Your task to perform on an android device: Open Youtube and go to "Your channel" Image 0: 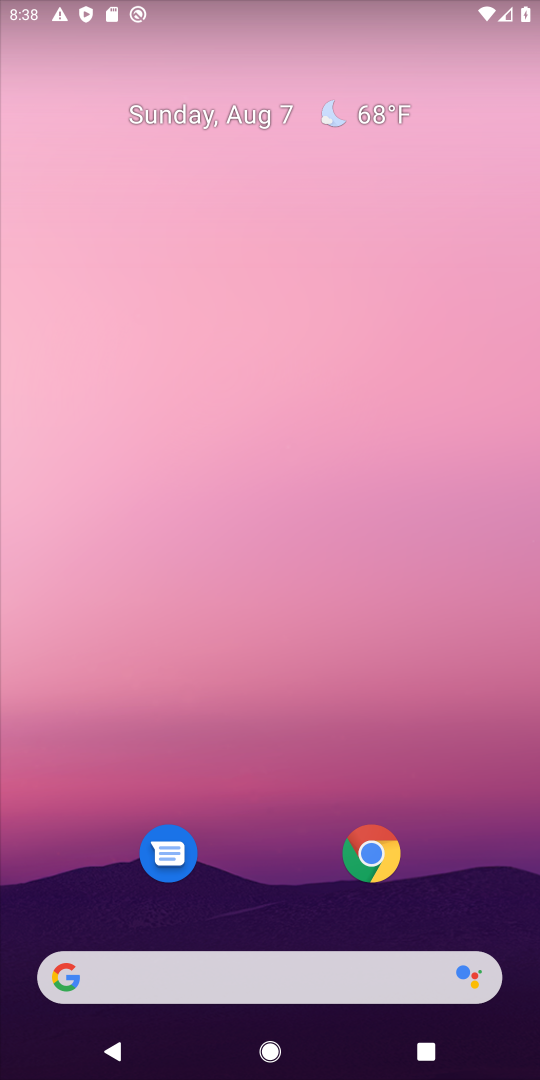
Step 0: drag from (360, 877) to (303, 284)
Your task to perform on an android device: Open Youtube and go to "Your channel" Image 1: 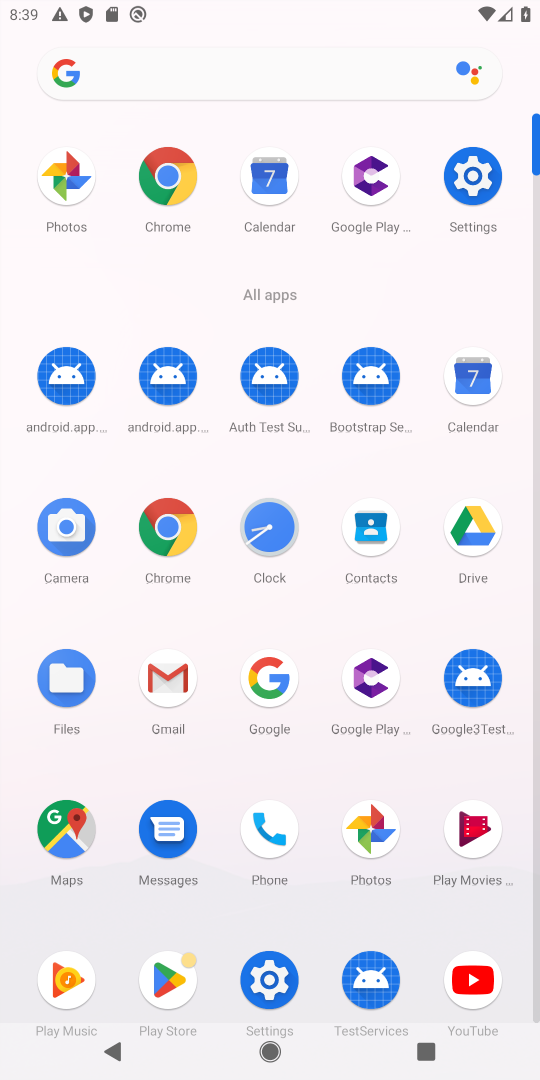
Step 1: click (464, 988)
Your task to perform on an android device: Open Youtube and go to "Your channel" Image 2: 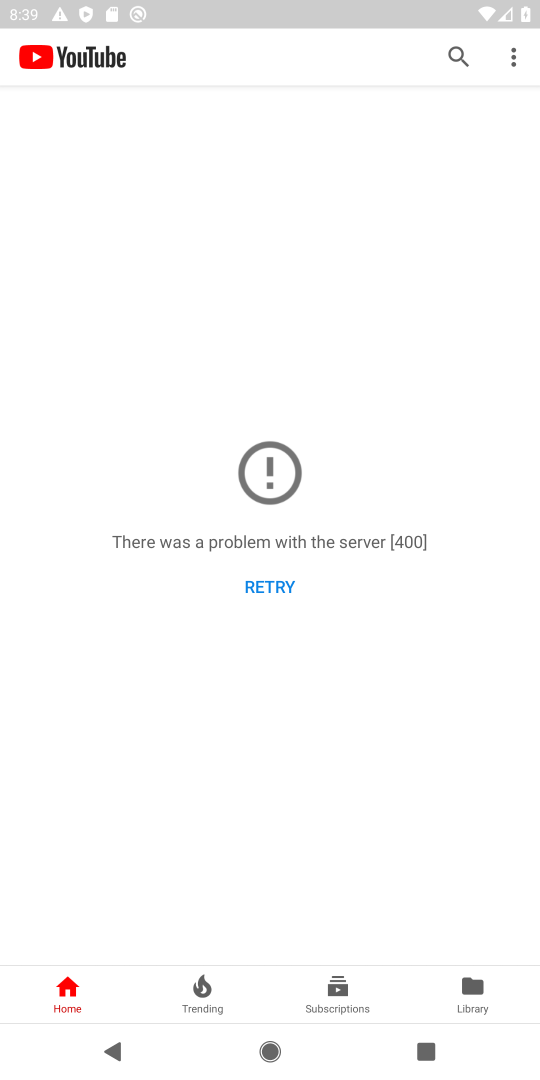
Step 2: click (459, 51)
Your task to perform on an android device: Open Youtube and go to "Your channel" Image 3: 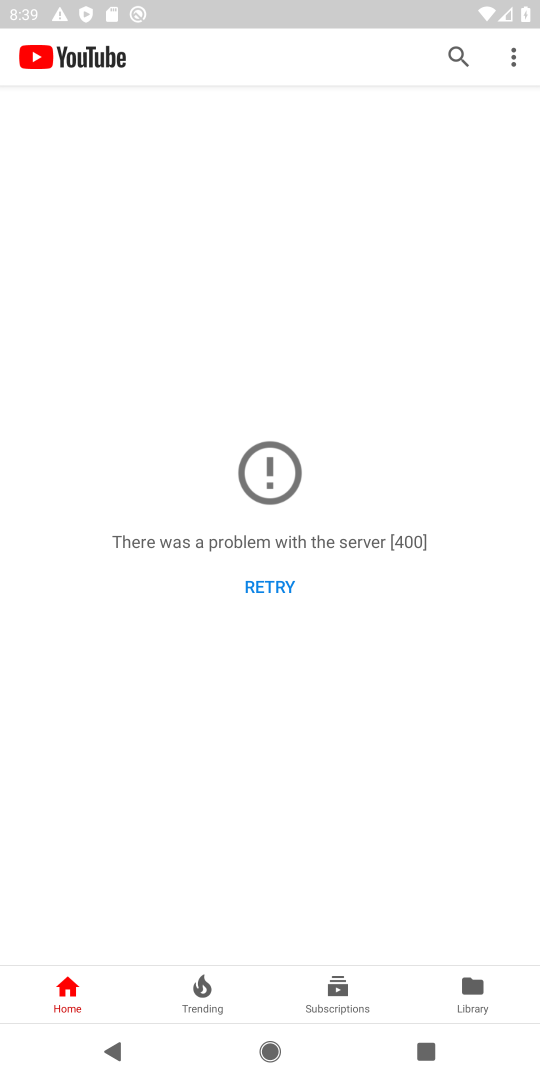
Step 3: click (449, 41)
Your task to perform on an android device: Open Youtube and go to "Your channel" Image 4: 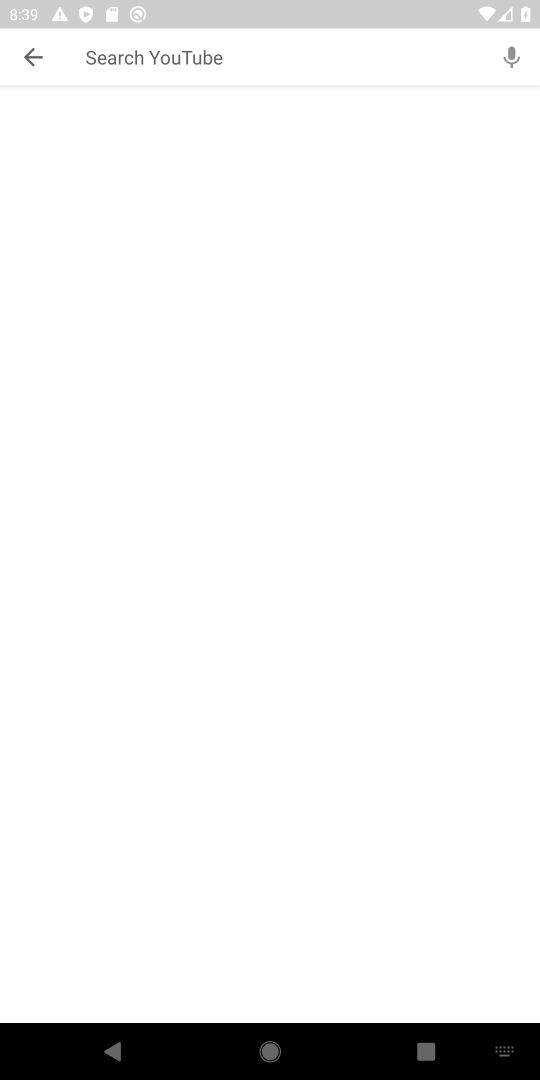
Step 4: click (268, 36)
Your task to perform on an android device: Open Youtube and go to "Your channel" Image 5: 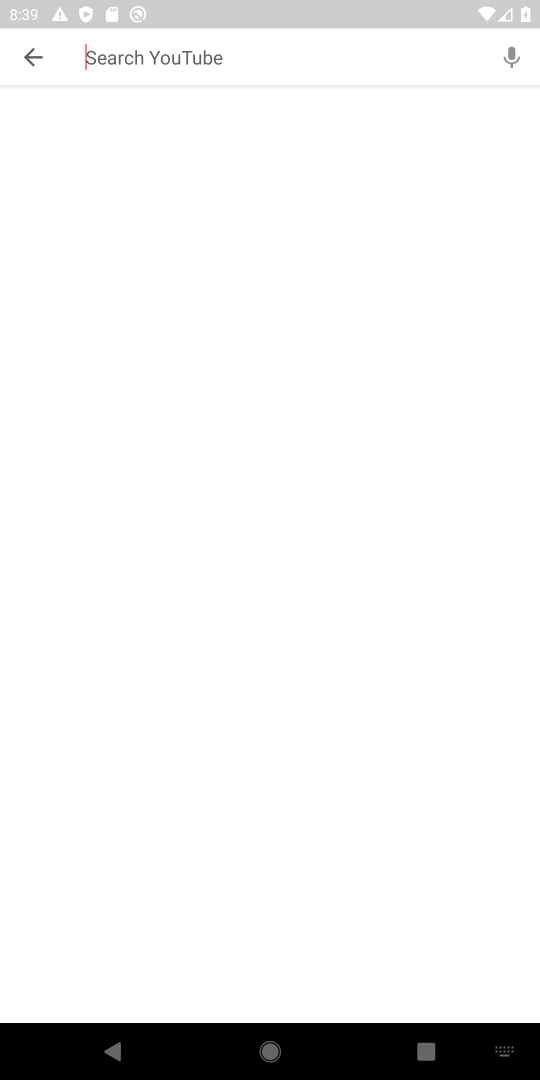
Step 5: type "india "
Your task to perform on an android device: Open Youtube and go to "Your channel" Image 6: 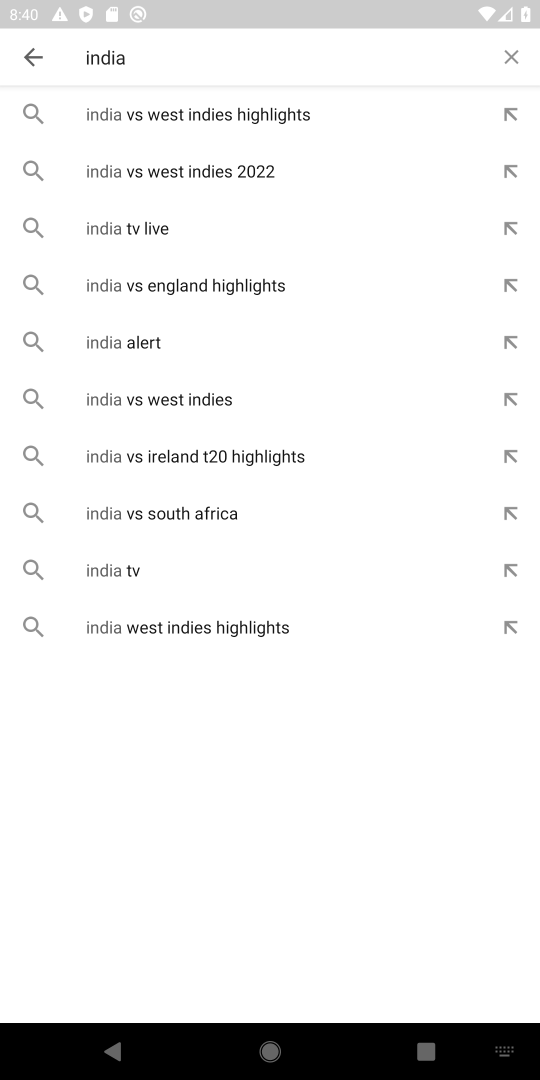
Step 6: click (228, 107)
Your task to perform on an android device: Open Youtube and go to "Your channel" Image 7: 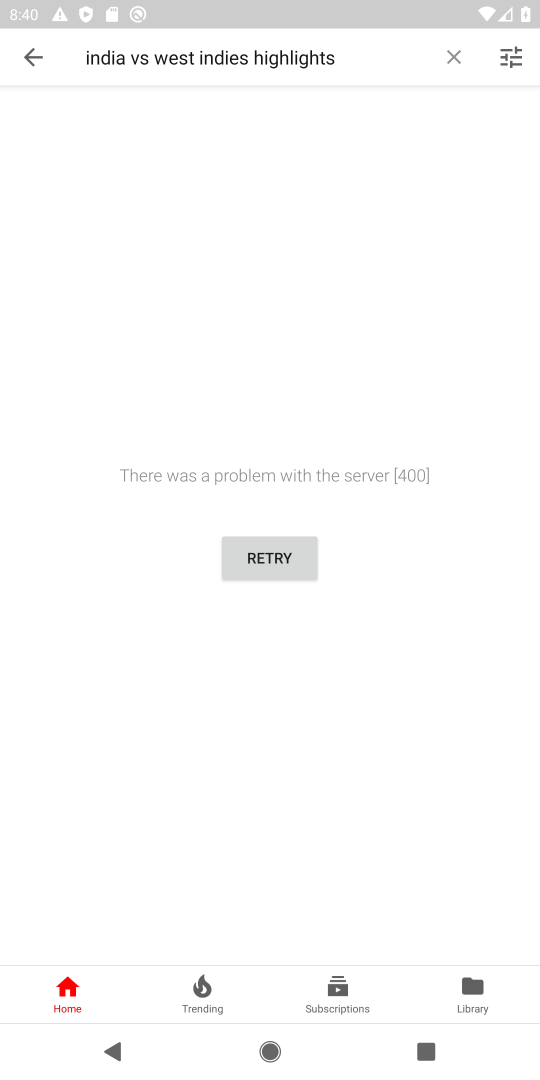
Step 7: task complete